Your task to perform on an android device: Open the web browser Image 0: 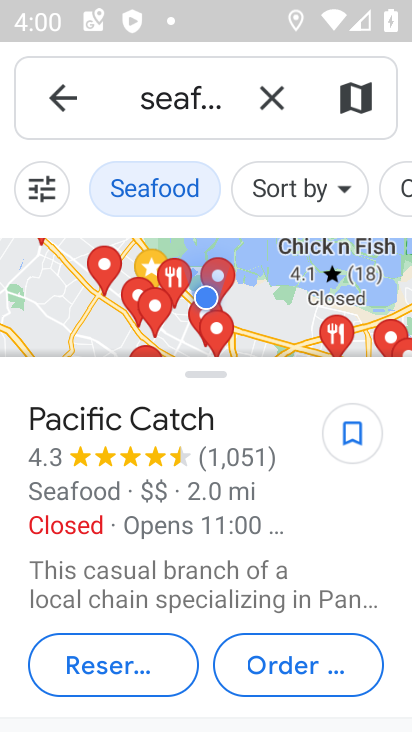
Step 0: press home button
Your task to perform on an android device: Open the web browser Image 1: 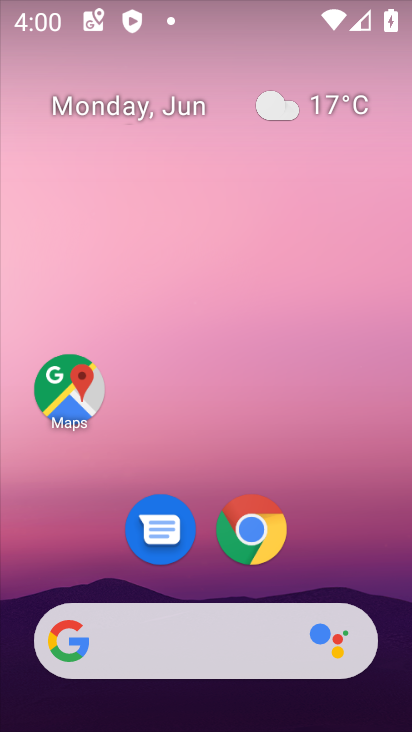
Step 1: click (251, 528)
Your task to perform on an android device: Open the web browser Image 2: 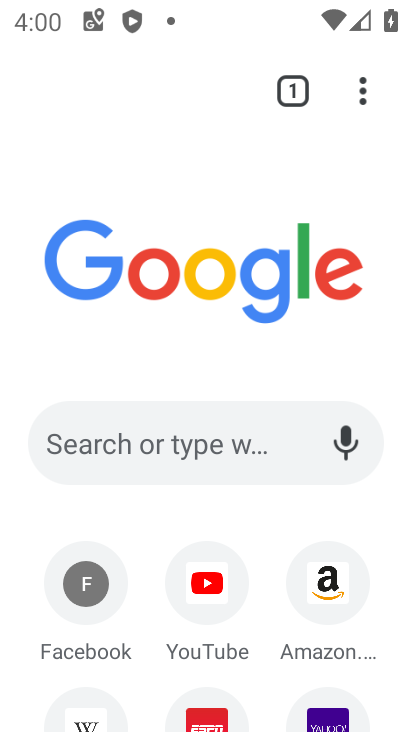
Step 2: task complete